Your task to perform on an android device: see tabs open on other devices in the chrome app Image 0: 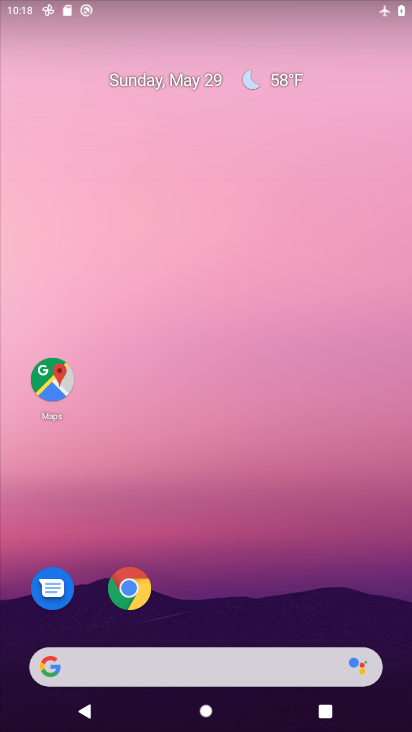
Step 0: click (197, 253)
Your task to perform on an android device: see tabs open on other devices in the chrome app Image 1: 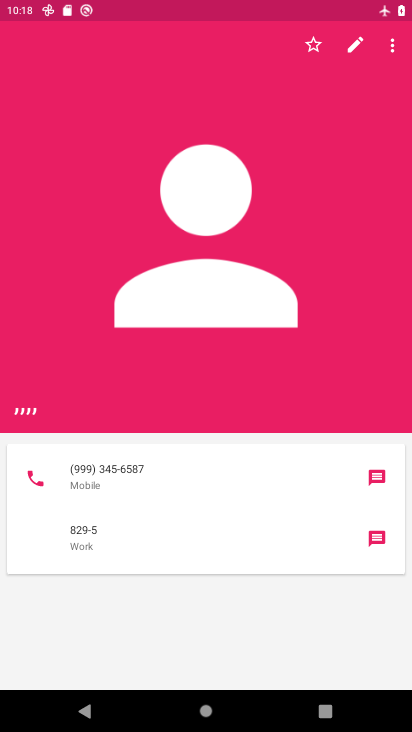
Step 1: press home button
Your task to perform on an android device: see tabs open on other devices in the chrome app Image 2: 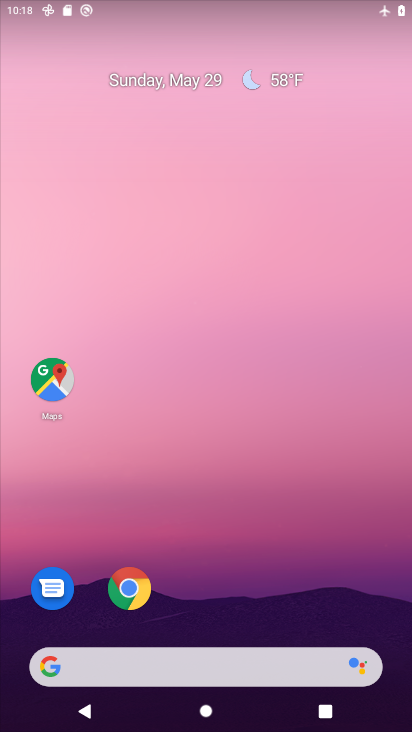
Step 2: drag from (267, 641) to (279, 187)
Your task to perform on an android device: see tabs open on other devices in the chrome app Image 3: 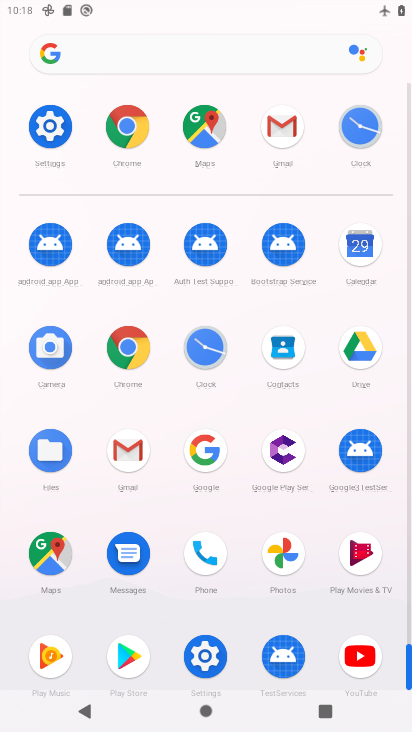
Step 3: click (126, 110)
Your task to perform on an android device: see tabs open on other devices in the chrome app Image 4: 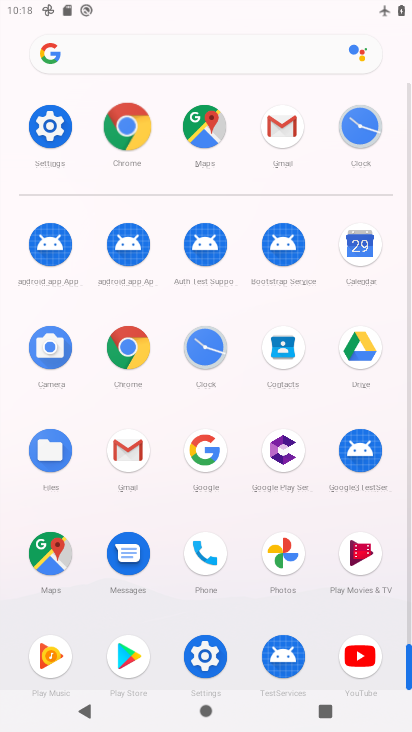
Step 4: click (126, 113)
Your task to perform on an android device: see tabs open on other devices in the chrome app Image 5: 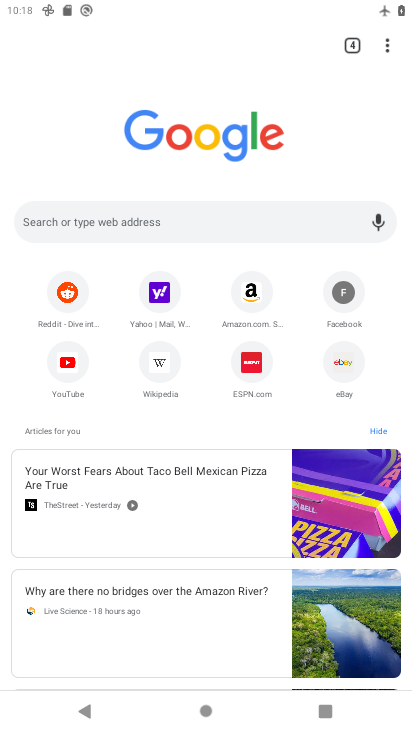
Step 5: drag from (384, 43) to (217, 213)
Your task to perform on an android device: see tabs open on other devices in the chrome app Image 6: 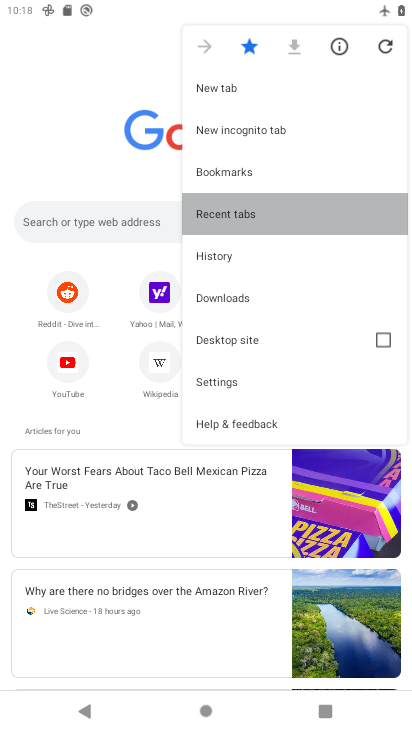
Step 6: click (217, 213)
Your task to perform on an android device: see tabs open on other devices in the chrome app Image 7: 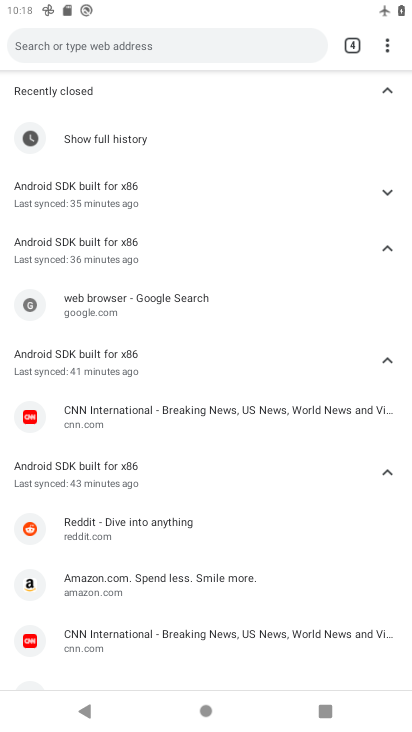
Step 7: task complete